Your task to perform on an android device: turn off smart reply in the gmail app Image 0: 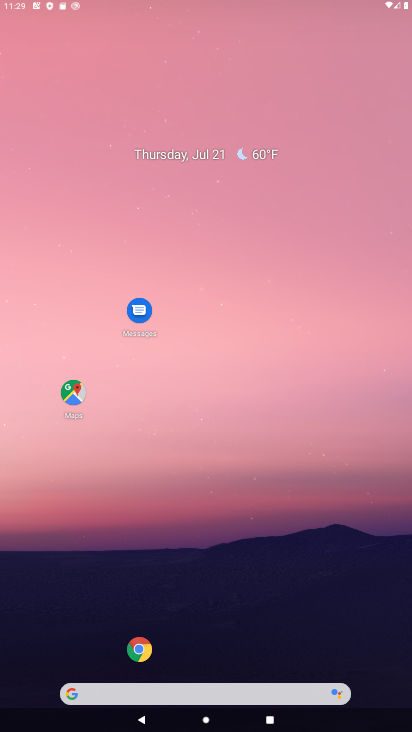
Step 0: drag from (40, 688) to (229, 163)
Your task to perform on an android device: turn off smart reply in the gmail app Image 1: 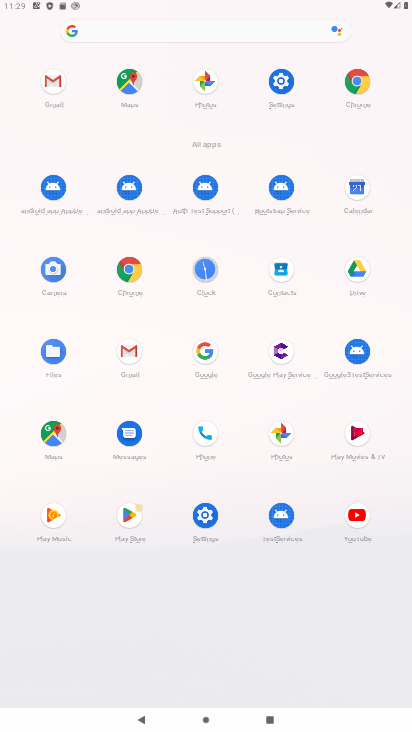
Step 1: click (126, 365)
Your task to perform on an android device: turn off smart reply in the gmail app Image 2: 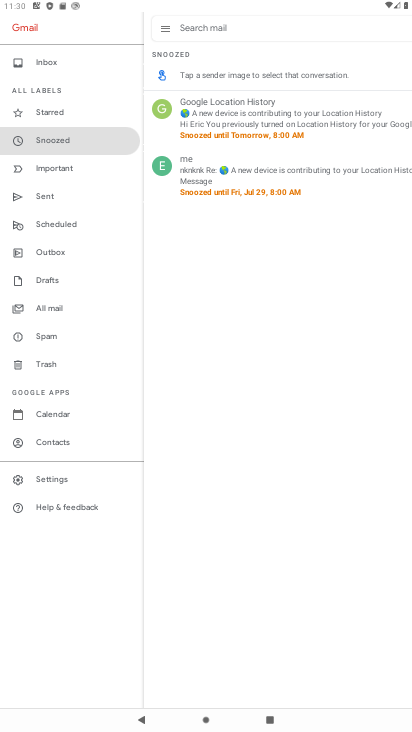
Step 2: click (55, 474)
Your task to perform on an android device: turn off smart reply in the gmail app Image 3: 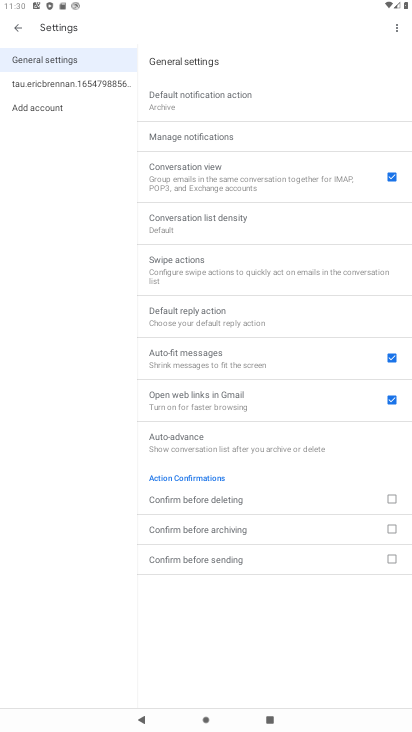
Step 3: click (29, 88)
Your task to perform on an android device: turn off smart reply in the gmail app Image 4: 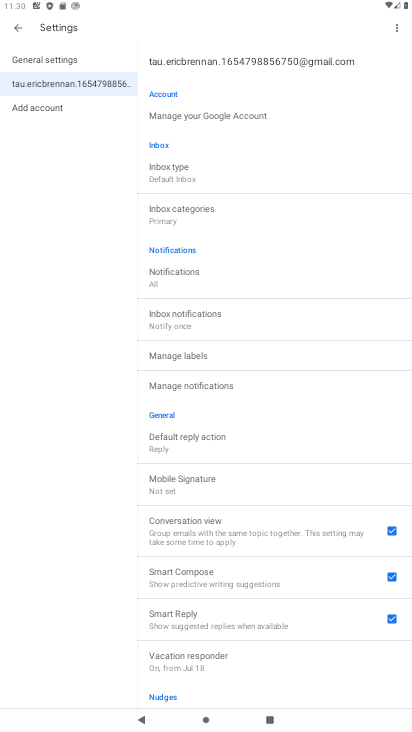
Step 4: click (391, 618)
Your task to perform on an android device: turn off smart reply in the gmail app Image 5: 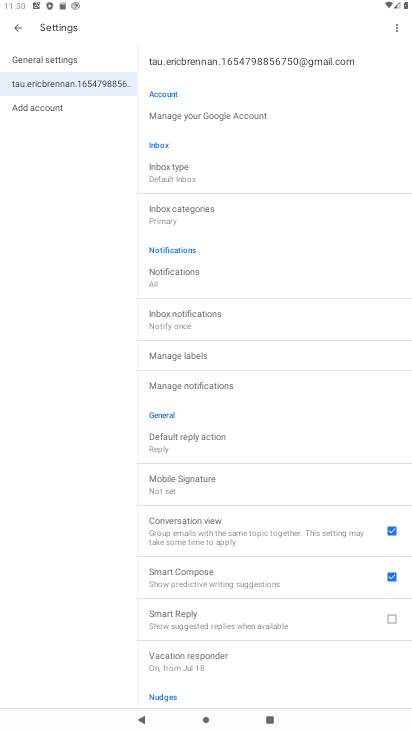
Step 5: task complete